Your task to perform on an android device: Go to notification settings Image 0: 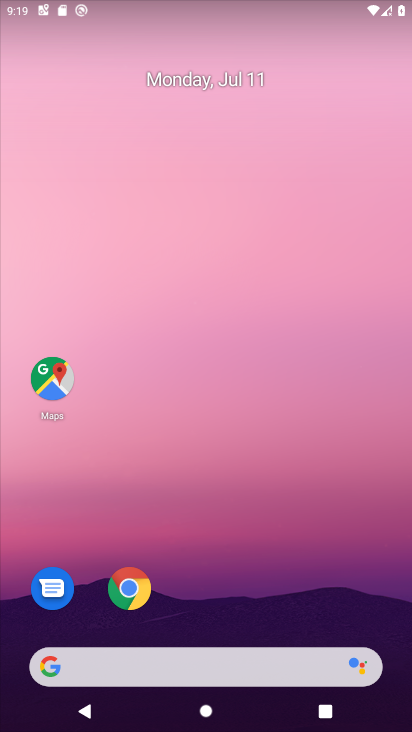
Step 0: drag from (325, 591) to (305, 15)
Your task to perform on an android device: Go to notification settings Image 1: 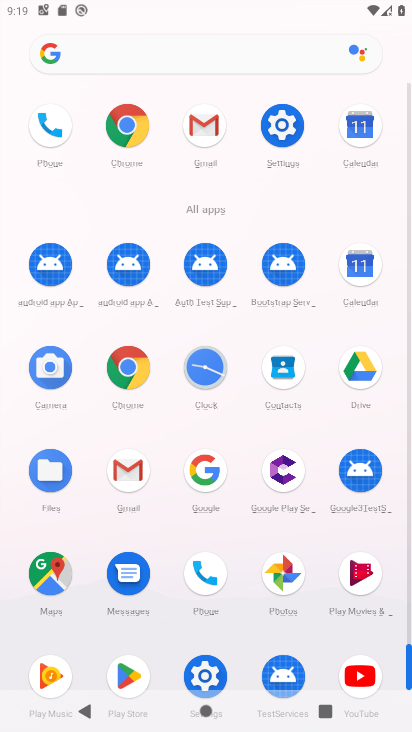
Step 1: click (296, 116)
Your task to perform on an android device: Go to notification settings Image 2: 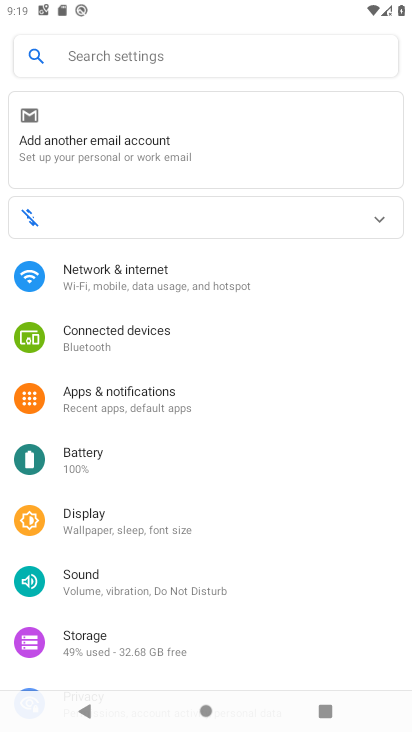
Step 2: click (182, 397)
Your task to perform on an android device: Go to notification settings Image 3: 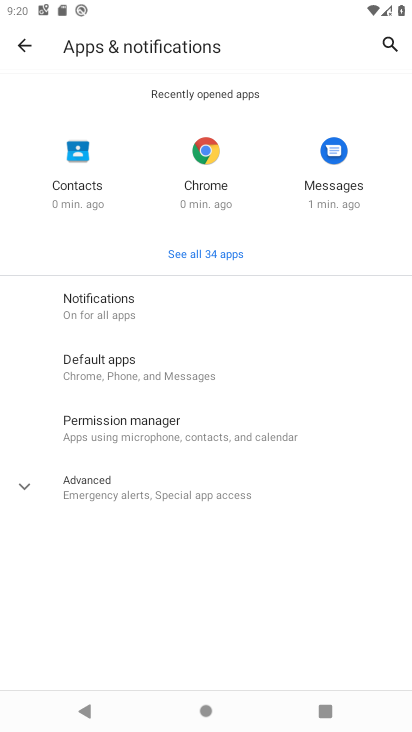
Step 3: click (134, 309)
Your task to perform on an android device: Go to notification settings Image 4: 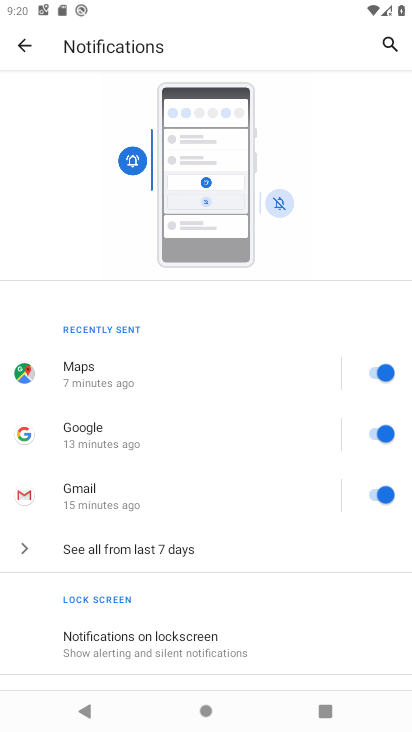
Step 4: task complete